Your task to perform on an android device: Open wifi settings Image 0: 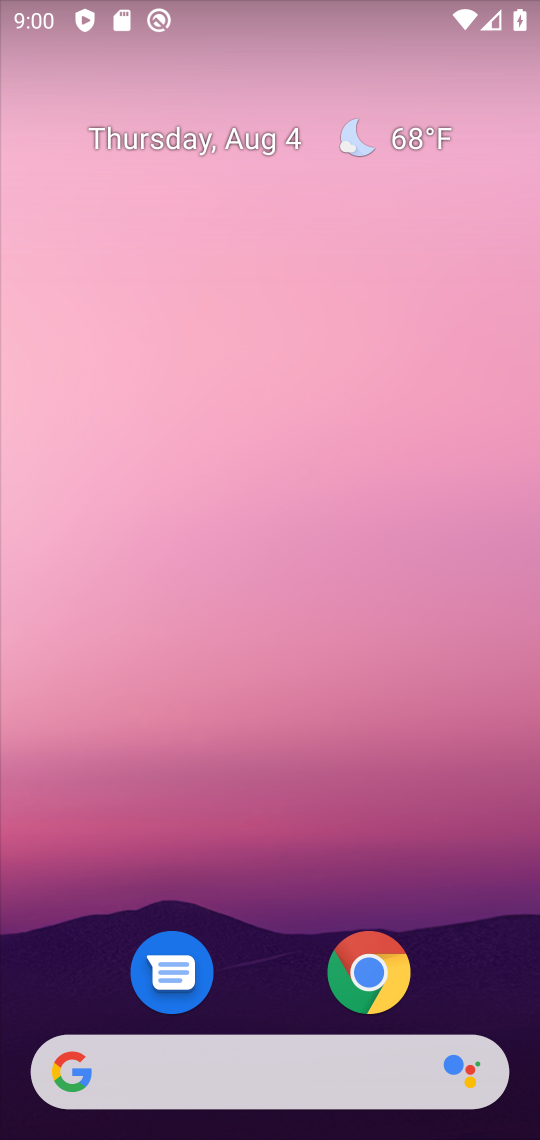
Step 0: drag from (291, 814) to (412, 26)
Your task to perform on an android device: Open wifi settings Image 1: 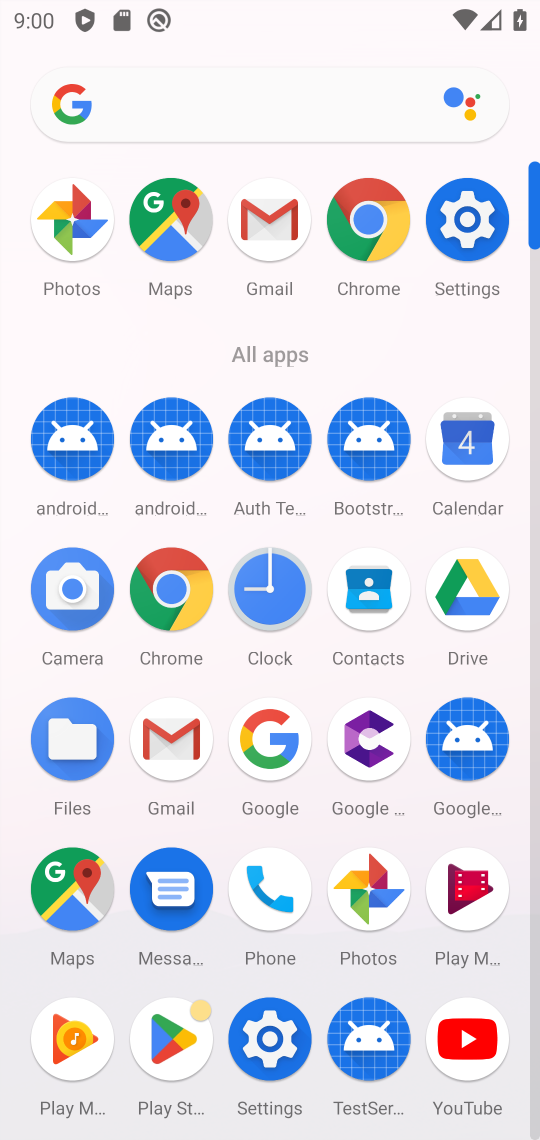
Step 1: click (459, 205)
Your task to perform on an android device: Open wifi settings Image 2: 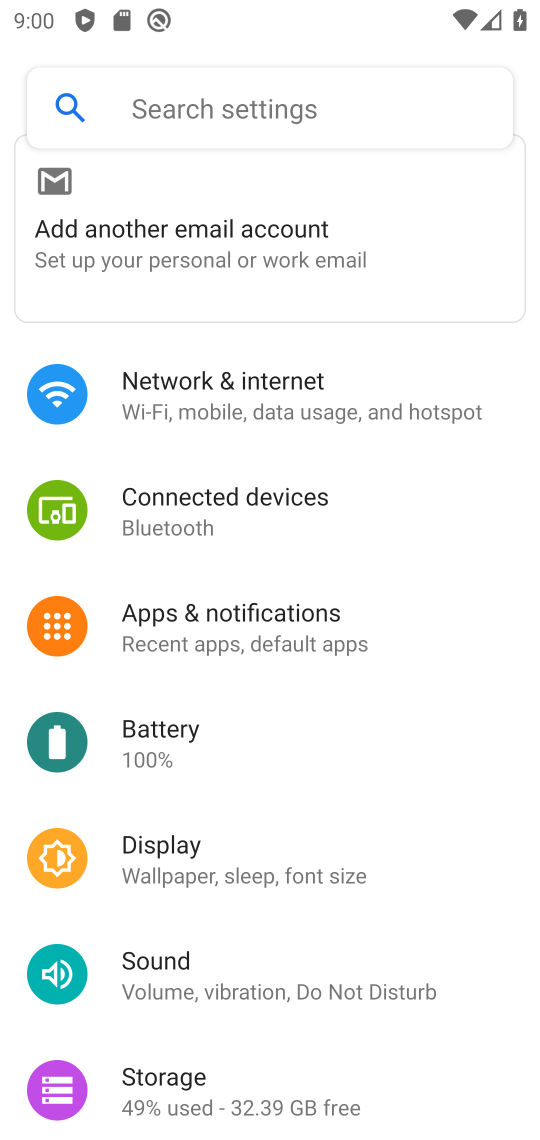
Step 2: click (286, 394)
Your task to perform on an android device: Open wifi settings Image 3: 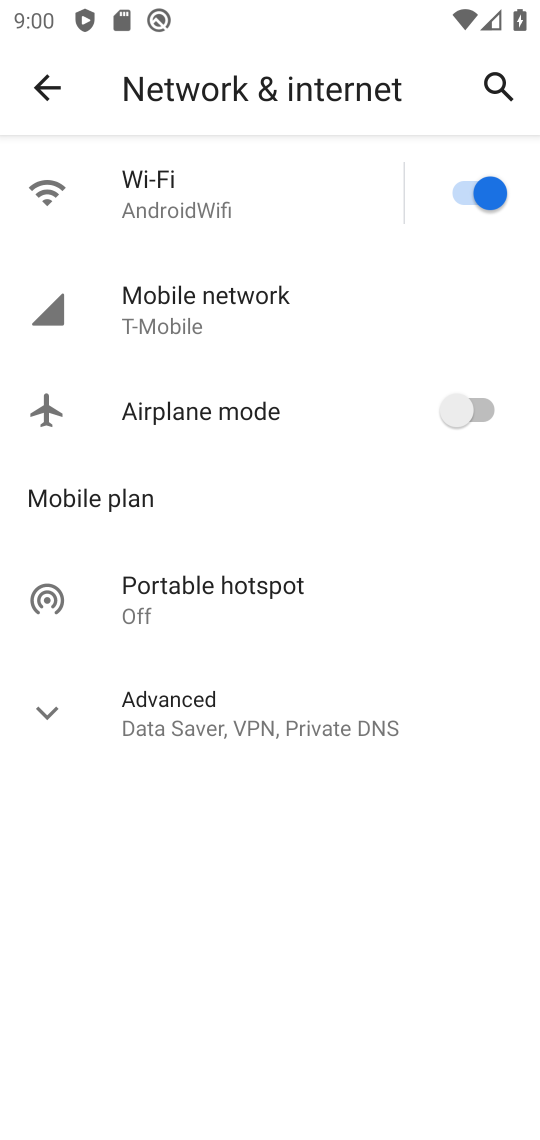
Step 3: click (169, 202)
Your task to perform on an android device: Open wifi settings Image 4: 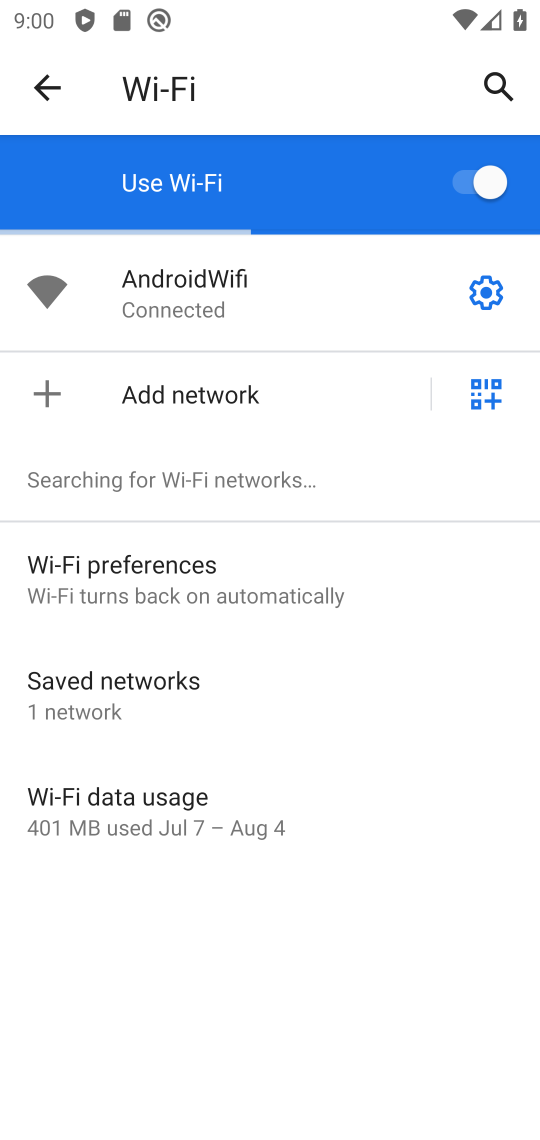
Step 4: task complete